Your task to perform on an android device: turn pop-ups on in chrome Image 0: 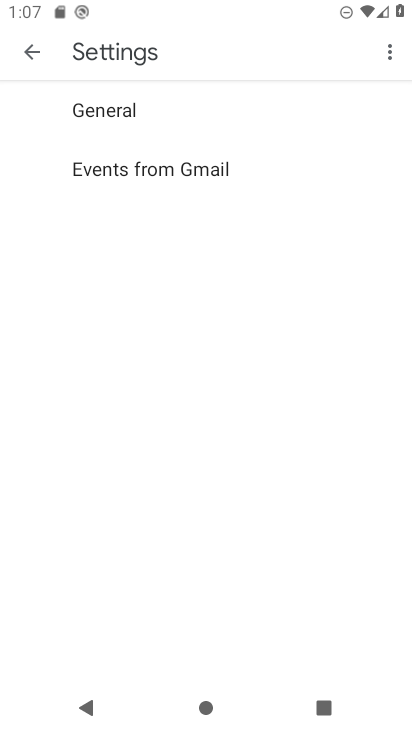
Step 0: press home button
Your task to perform on an android device: turn pop-ups on in chrome Image 1: 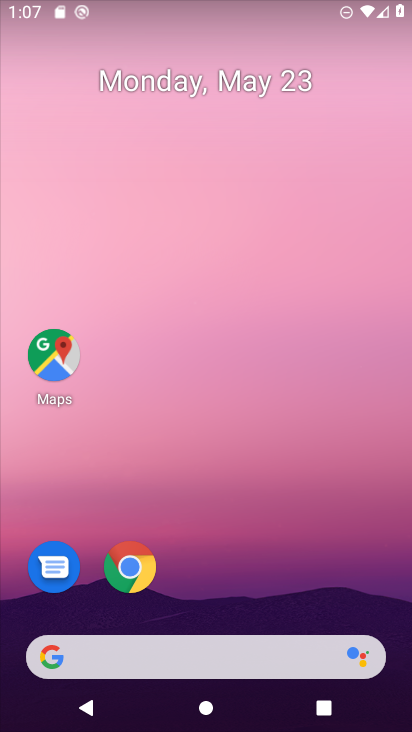
Step 1: click (133, 582)
Your task to perform on an android device: turn pop-ups on in chrome Image 2: 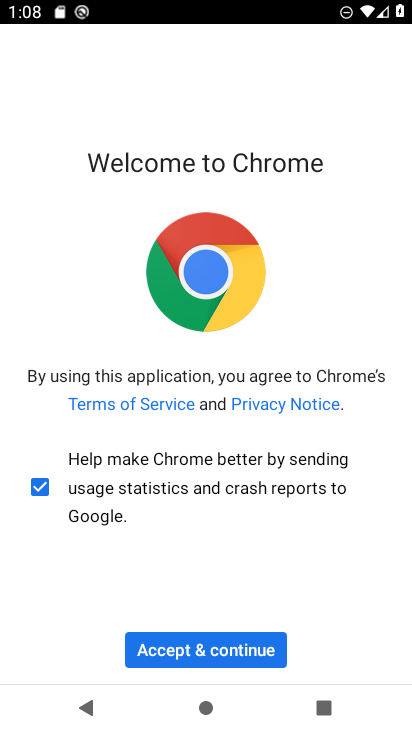
Step 2: click (261, 655)
Your task to perform on an android device: turn pop-ups on in chrome Image 3: 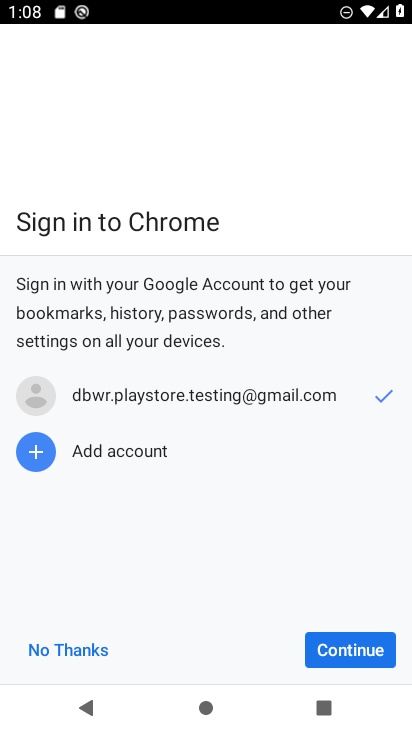
Step 3: click (368, 651)
Your task to perform on an android device: turn pop-ups on in chrome Image 4: 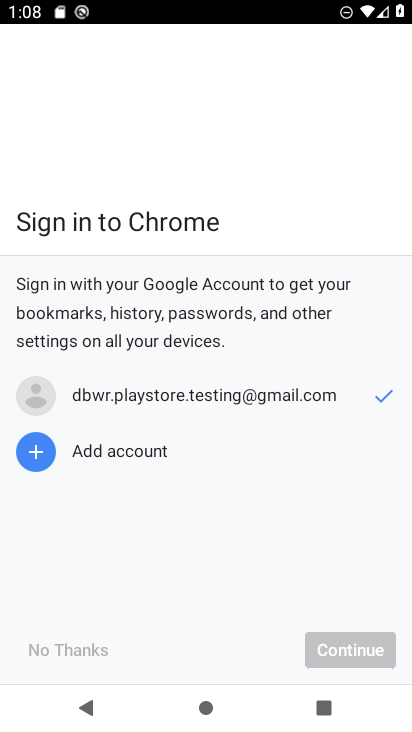
Step 4: click (368, 651)
Your task to perform on an android device: turn pop-ups on in chrome Image 5: 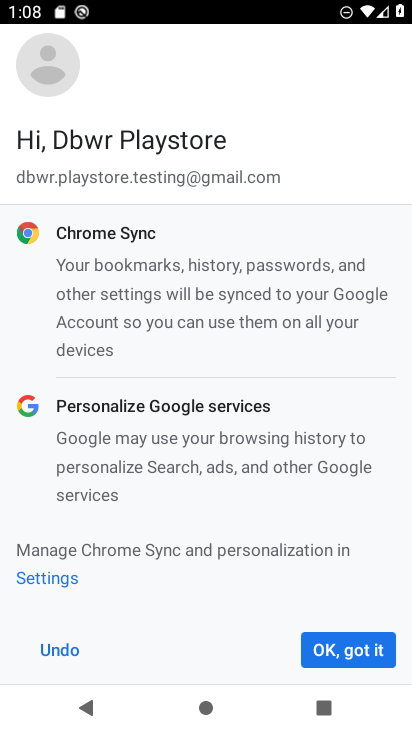
Step 5: click (368, 651)
Your task to perform on an android device: turn pop-ups on in chrome Image 6: 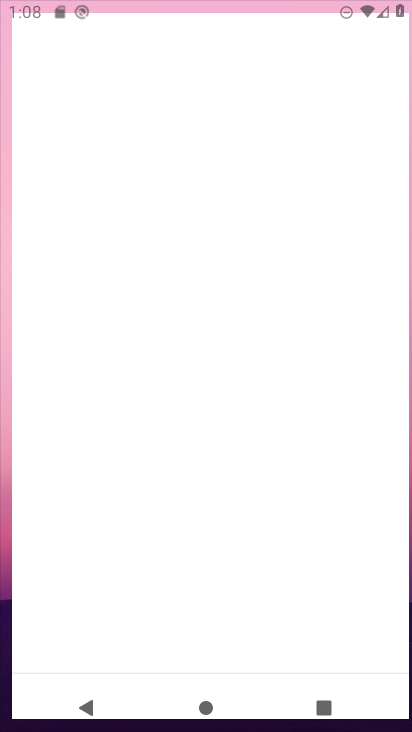
Step 6: click (368, 651)
Your task to perform on an android device: turn pop-ups on in chrome Image 7: 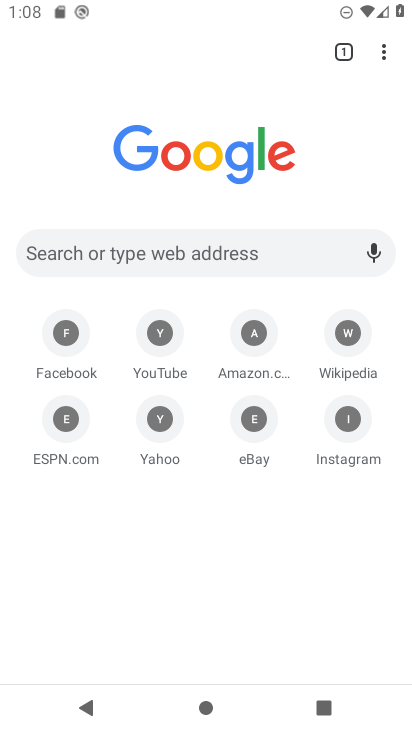
Step 7: drag from (376, 88) to (379, 48)
Your task to perform on an android device: turn pop-ups on in chrome Image 8: 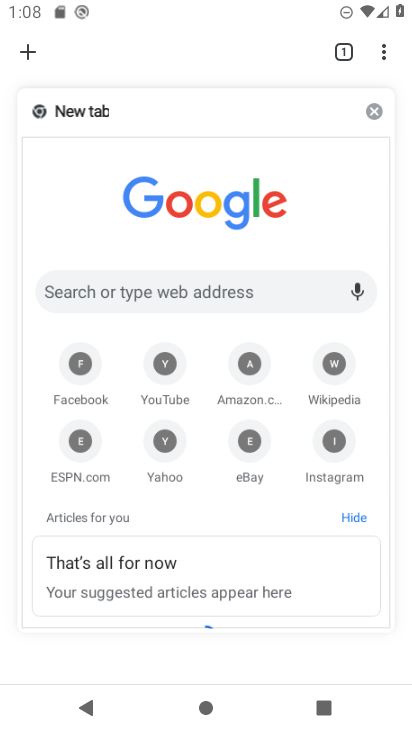
Step 8: click (288, 173)
Your task to perform on an android device: turn pop-ups on in chrome Image 9: 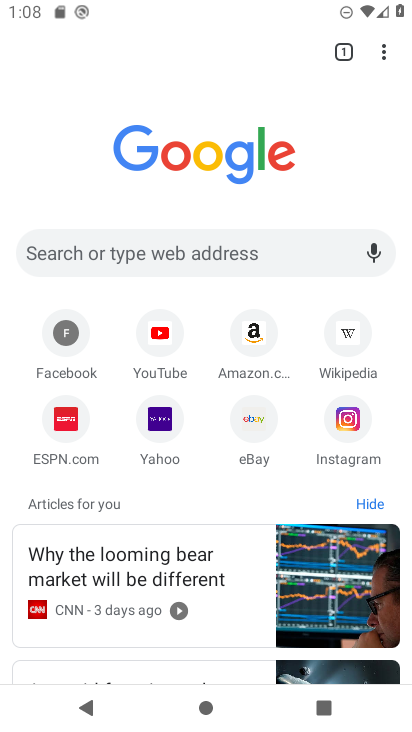
Step 9: drag from (386, 43) to (220, 429)
Your task to perform on an android device: turn pop-ups on in chrome Image 10: 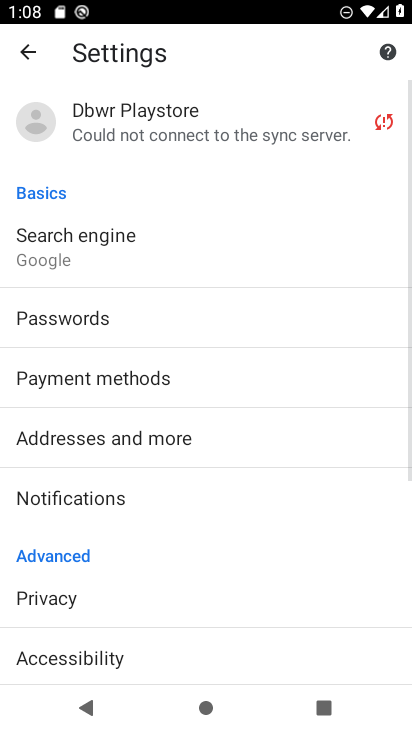
Step 10: drag from (78, 602) to (200, 341)
Your task to perform on an android device: turn pop-ups on in chrome Image 11: 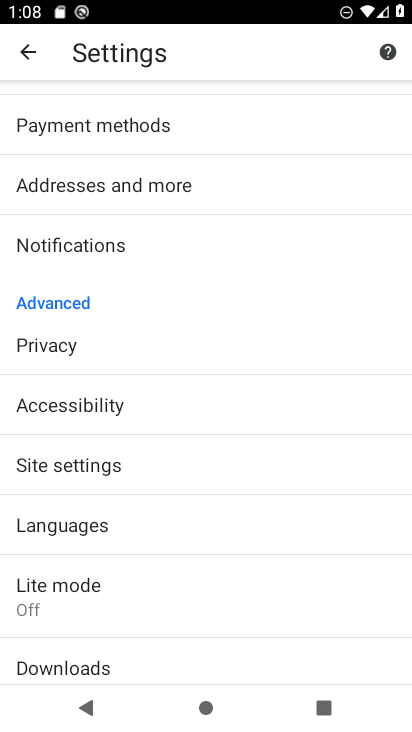
Step 11: click (89, 458)
Your task to perform on an android device: turn pop-ups on in chrome Image 12: 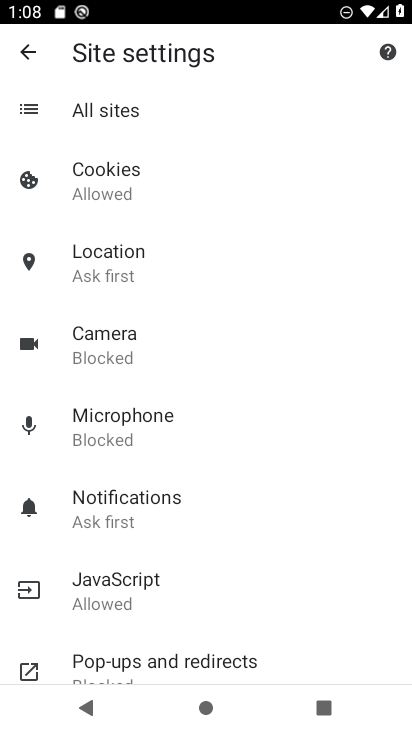
Step 12: drag from (250, 608) to (247, 372)
Your task to perform on an android device: turn pop-ups on in chrome Image 13: 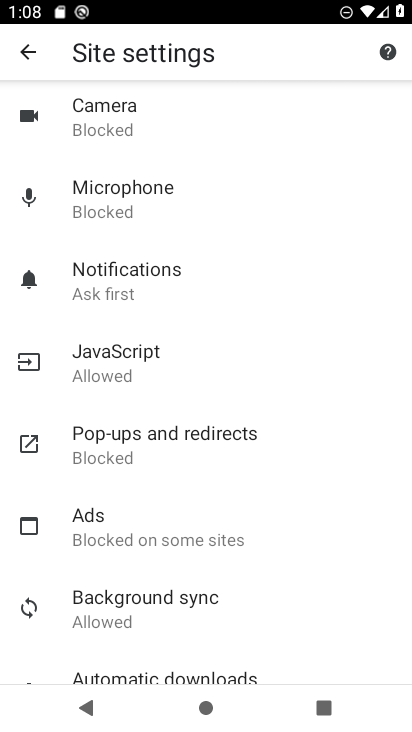
Step 13: click (186, 455)
Your task to perform on an android device: turn pop-ups on in chrome Image 14: 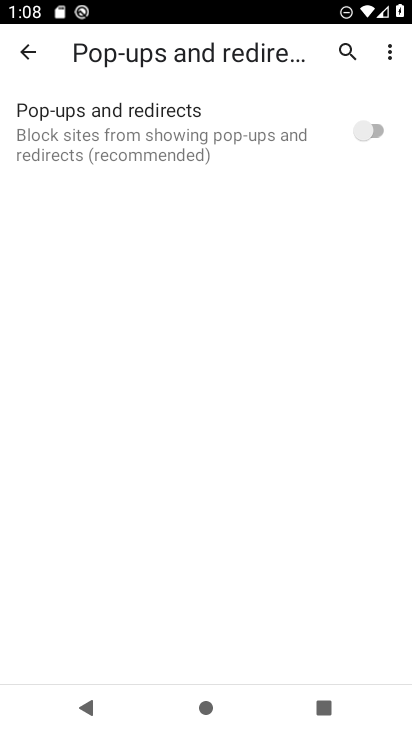
Step 14: click (332, 132)
Your task to perform on an android device: turn pop-ups on in chrome Image 15: 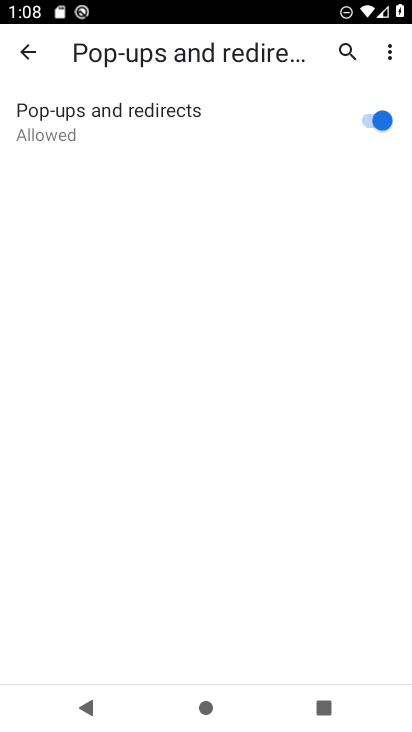
Step 15: task complete